Your task to perform on an android device: check the backup settings in the google photos Image 0: 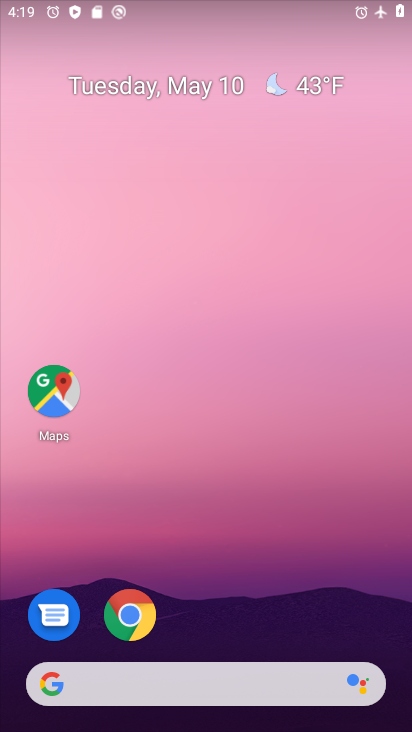
Step 0: drag from (239, 390) to (239, 6)
Your task to perform on an android device: check the backup settings in the google photos Image 1: 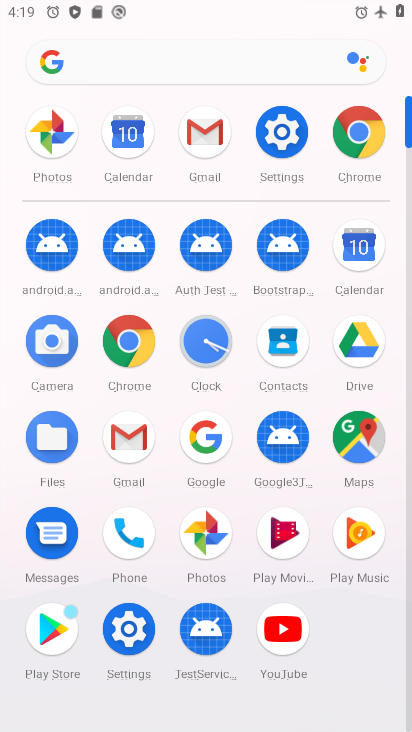
Step 1: drag from (16, 552) to (14, 252)
Your task to perform on an android device: check the backup settings in the google photos Image 2: 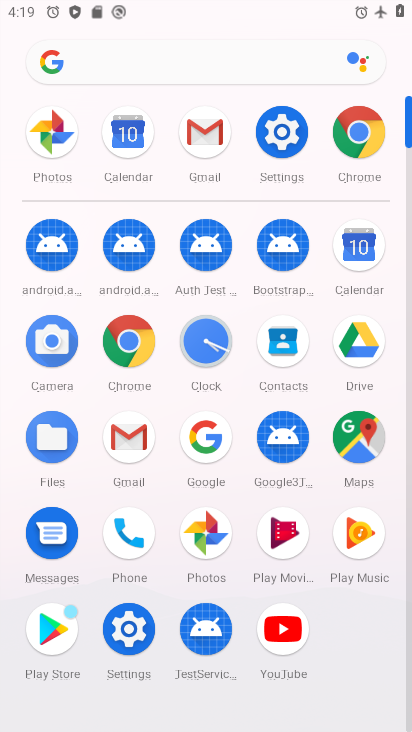
Step 2: click (205, 530)
Your task to perform on an android device: check the backup settings in the google photos Image 3: 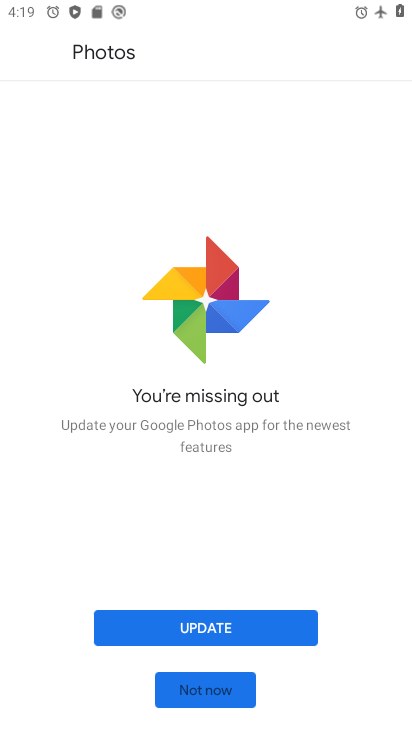
Step 3: click (227, 691)
Your task to perform on an android device: check the backup settings in the google photos Image 4: 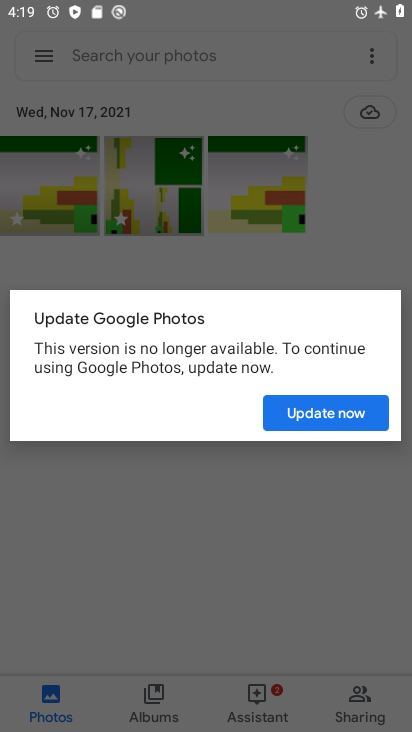
Step 4: click (311, 405)
Your task to perform on an android device: check the backup settings in the google photos Image 5: 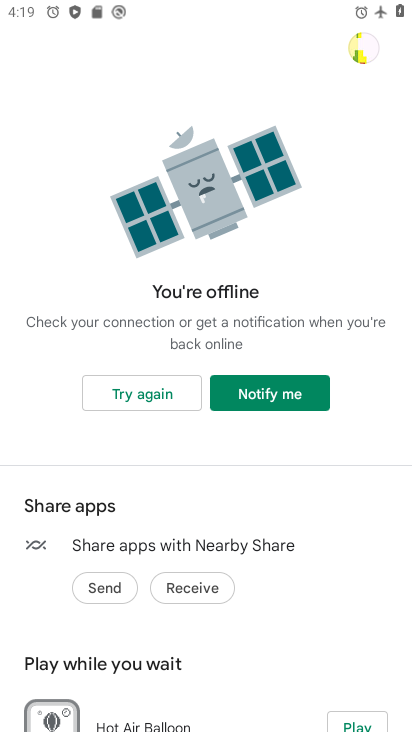
Step 5: click (156, 406)
Your task to perform on an android device: check the backup settings in the google photos Image 6: 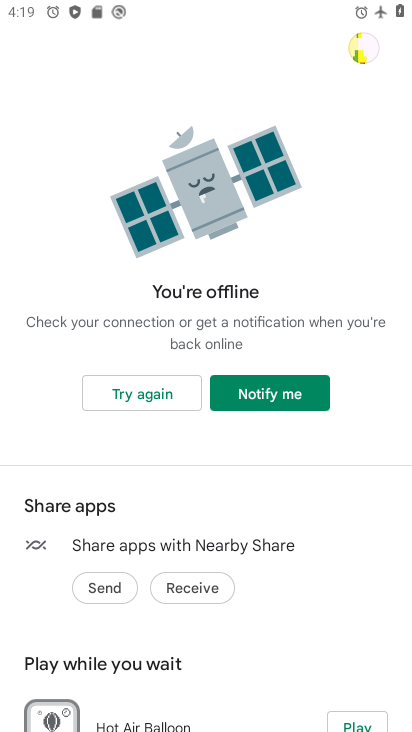
Step 6: task complete